Your task to perform on an android device: Go to Google Image 0: 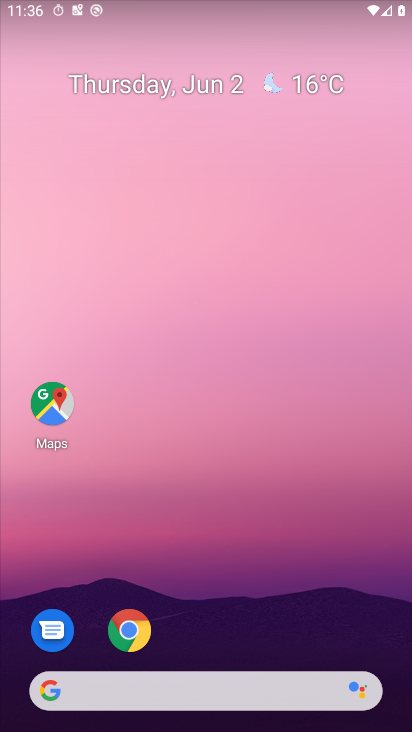
Step 0: click (159, 683)
Your task to perform on an android device: Go to Google Image 1: 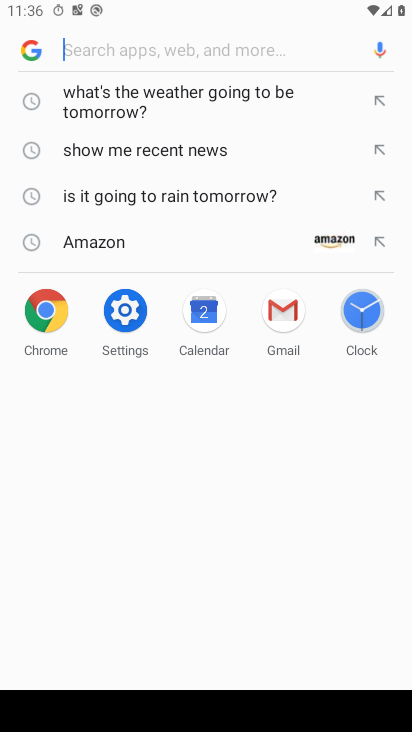
Step 1: click (34, 51)
Your task to perform on an android device: Go to Google Image 2: 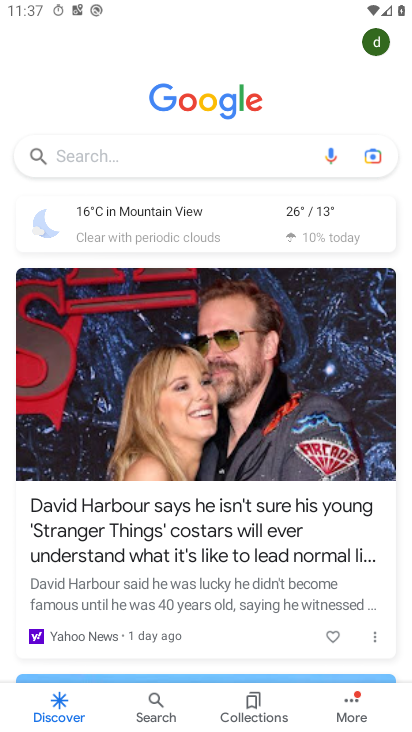
Step 2: task complete